Your task to perform on an android device: see sites visited before in the chrome app Image 0: 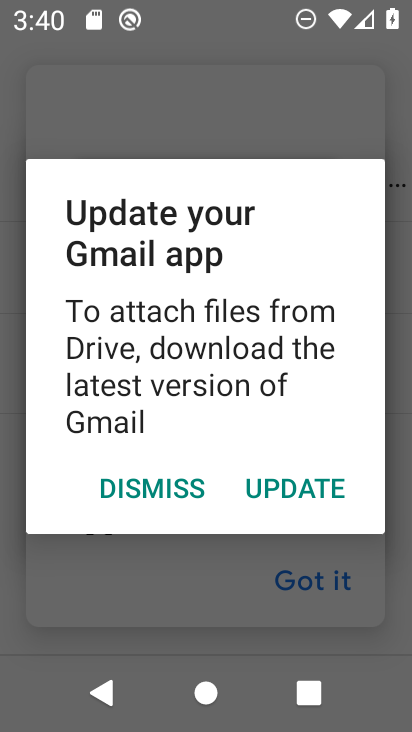
Step 0: press home button
Your task to perform on an android device: see sites visited before in the chrome app Image 1: 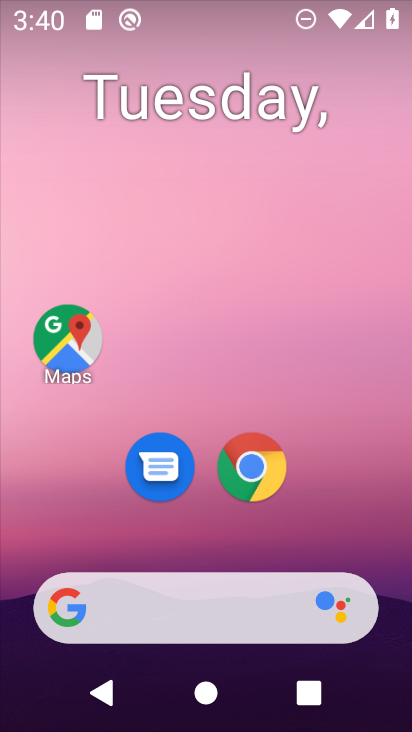
Step 1: click (258, 455)
Your task to perform on an android device: see sites visited before in the chrome app Image 2: 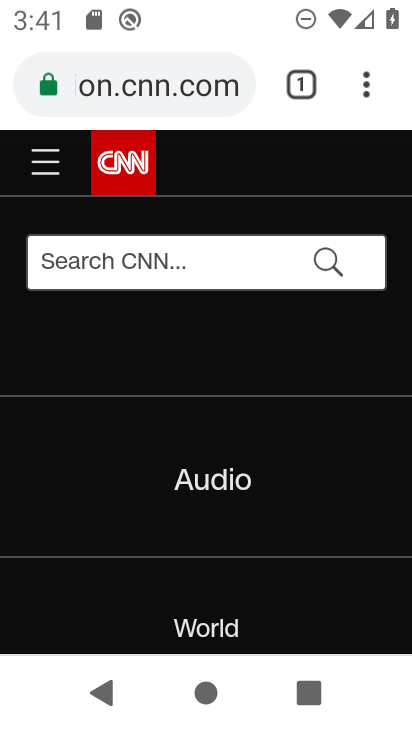
Step 2: click (367, 78)
Your task to perform on an android device: see sites visited before in the chrome app Image 3: 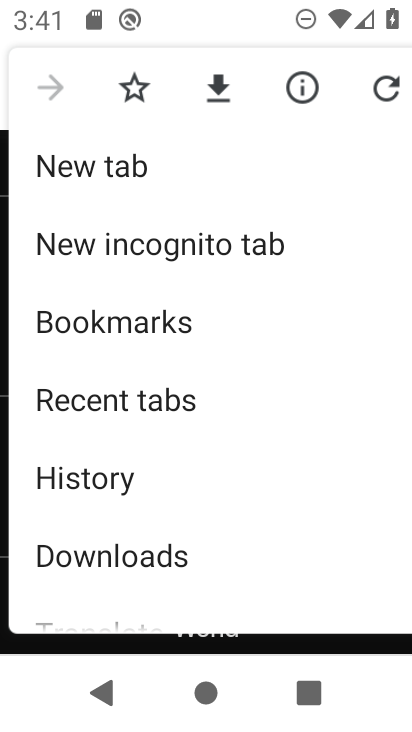
Step 3: click (57, 474)
Your task to perform on an android device: see sites visited before in the chrome app Image 4: 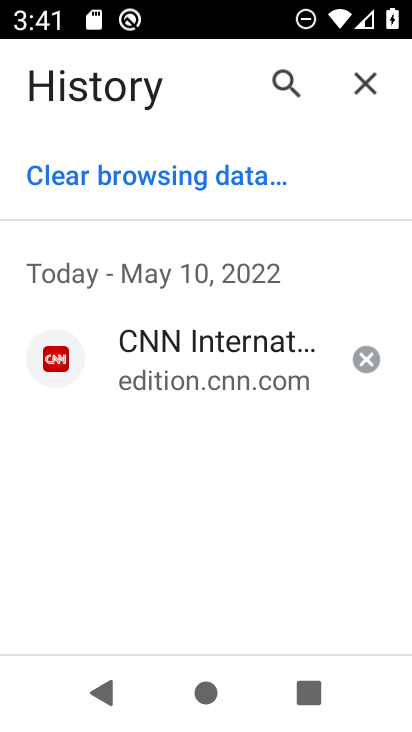
Step 4: task complete